Your task to perform on an android device: turn on sleep mode Image 0: 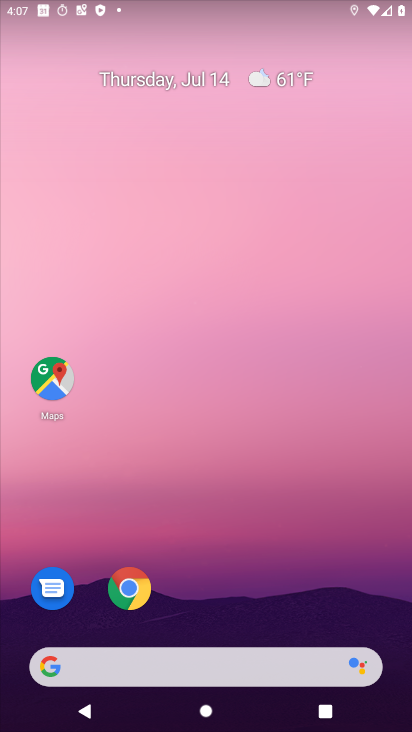
Step 0: drag from (218, 672) to (246, 222)
Your task to perform on an android device: turn on sleep mode Image 1: 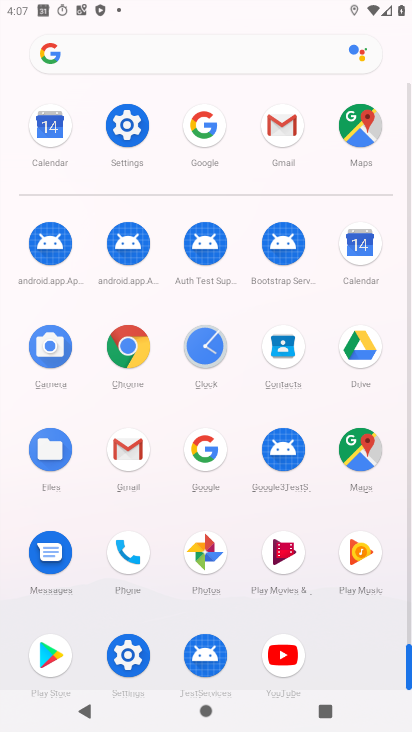
Step 1: click (128, 658)
Your task to perform on an android device: turn on sleep mode Image 2: 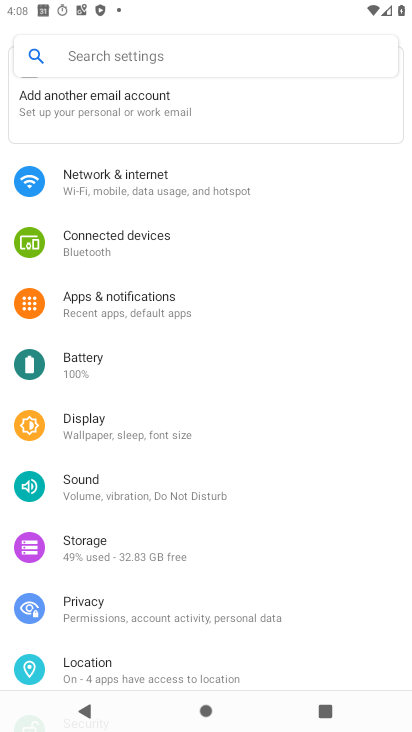
Step 2: click (86, 431)
Your task to perform on an android device: turn on sleep mode Image 3: 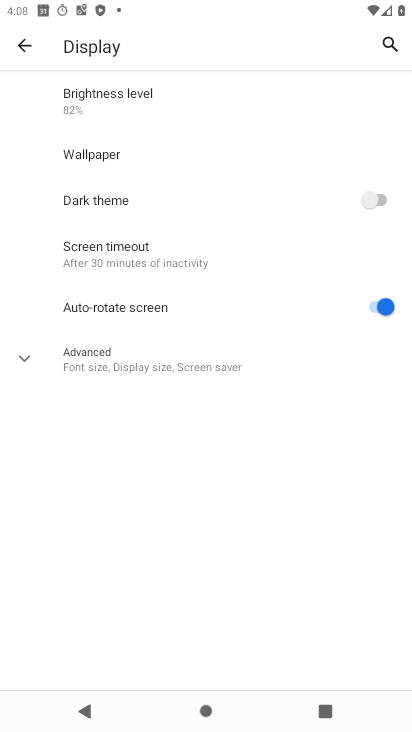
Step 3: click (104, 373)
Your task to perform on an android device: turn on sleep mode Image 4: 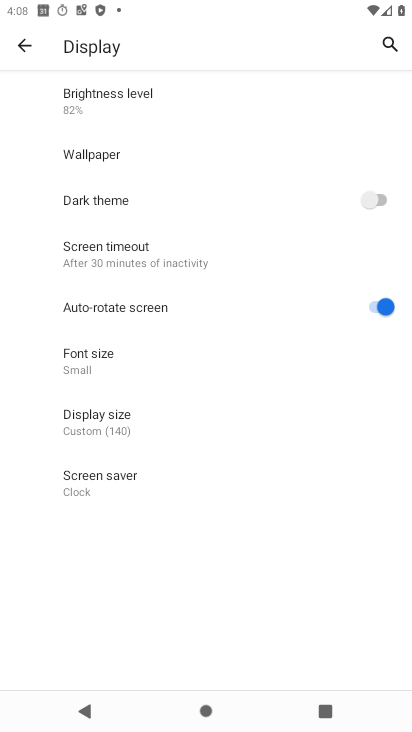
Step 4: click (116, 264)
Your task to perform on an android device: turn on sleep mode Image 5: 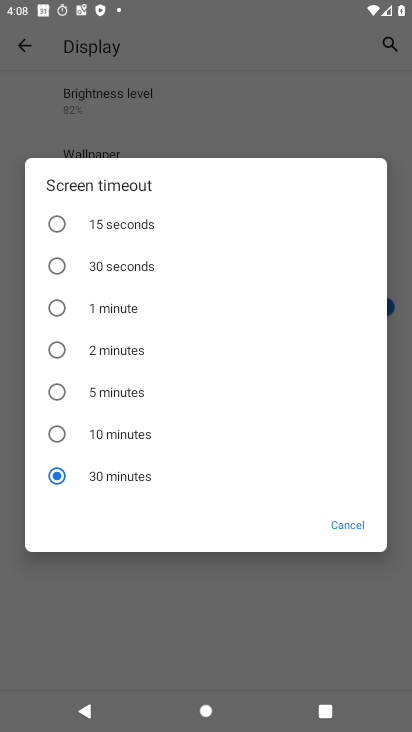
Step 5: click (360, 519)
Your task to perform on an android device: turn on sleep mode Image 6: 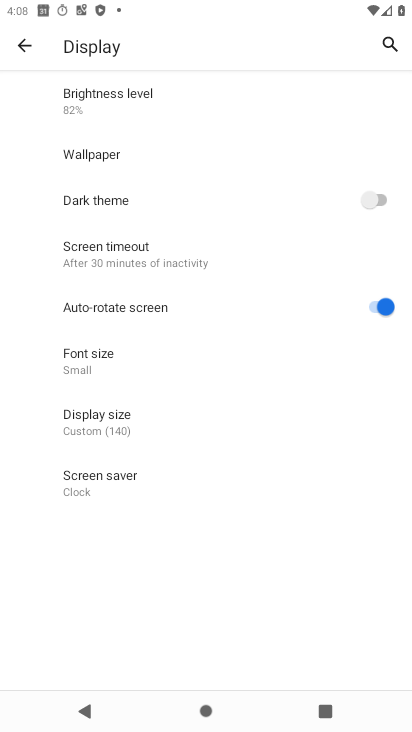
Step 6: click (105, 473)
Your task to perform on an android device: turn on sleep mode Image 7: 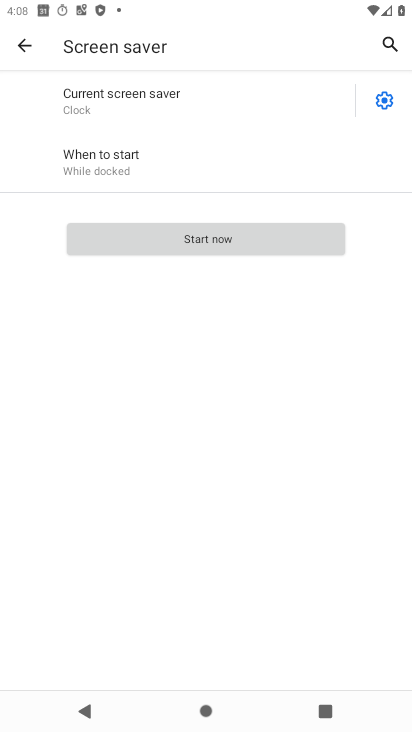
Step 7: task complete